Your task to perform on an android device: Open Reddit.com Image 0: 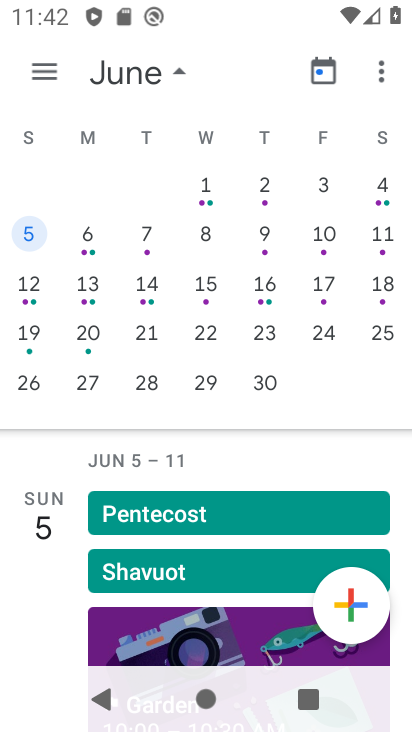
Step 0: press home button
Your task to perform on an android device: Open Reddit.com Image 1: 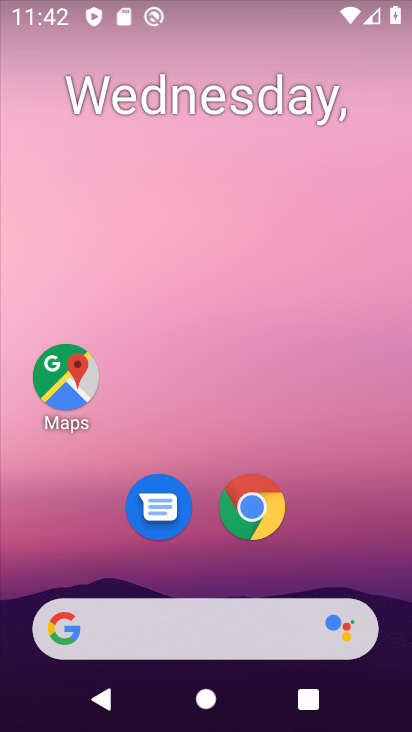
Step 1: drag from (279, 611) to (365, 137)
Your task to perform on an android device: Open Reddit.com Image 2: 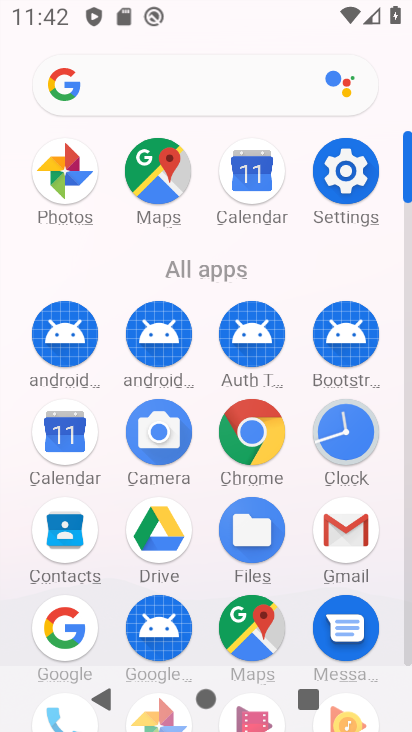
Step 2: click (268, 446)
Your task to perform on an android device: Open Reddit.com Image 3: 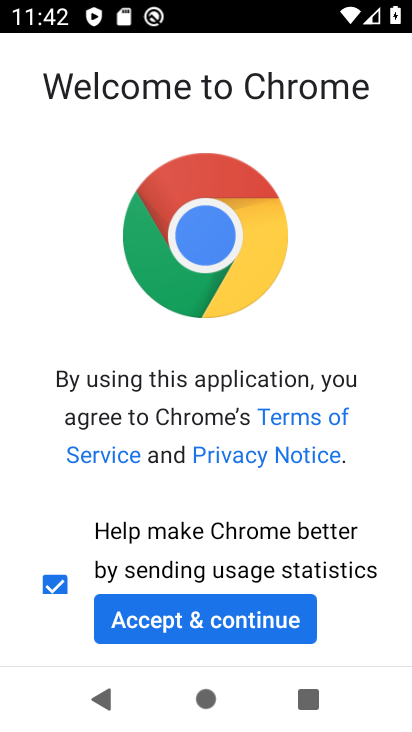
Step 3: click (202, 630)
Your task to perform on an android device: Open Reddit.com Image 4: 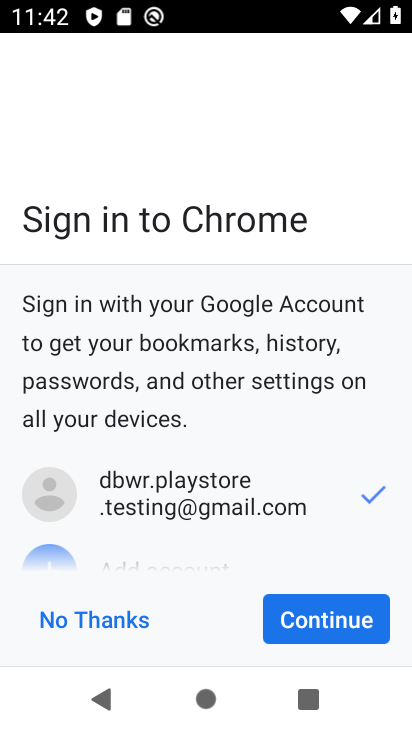
Step 4: click (314, 617)
Your task to perform on an android device: Open Reddit.com Image 5: 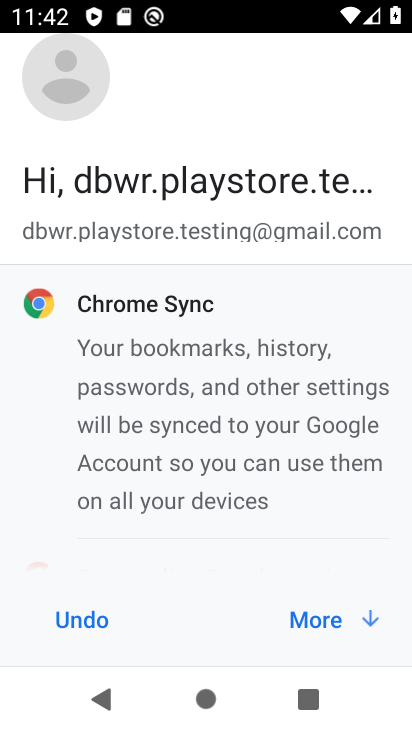
Step 5: click (328, 637)
Your task to perform on an android device: Open Reddit.com Image 6: 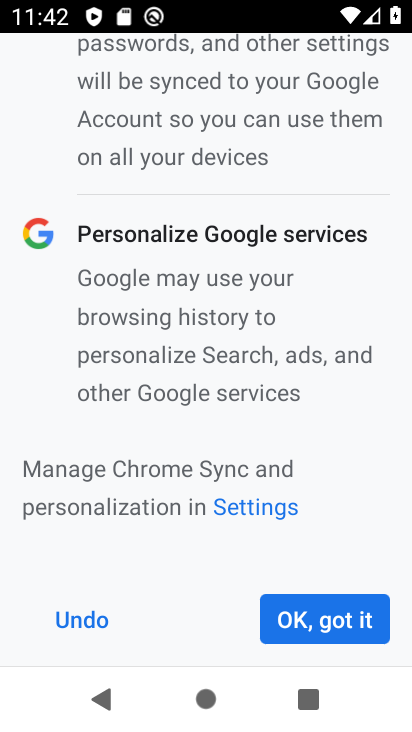
Step 6: click (323, 622)
Your task to perform on an android device: Open Reddit.com Image 7: 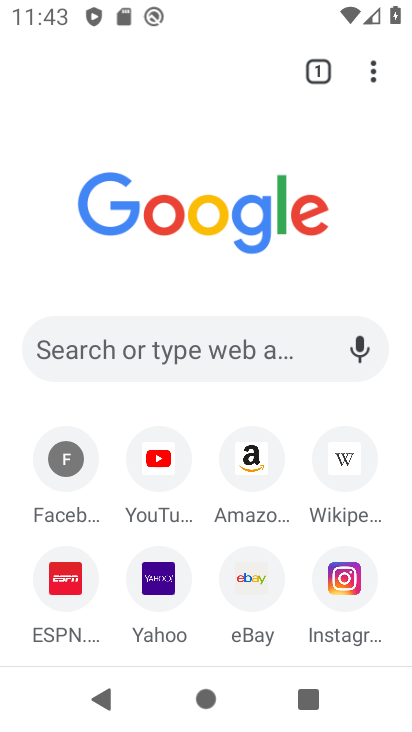
Step 7: click (161, 349)
Your task to perform on an android device: Open Reddit.com Image 8: 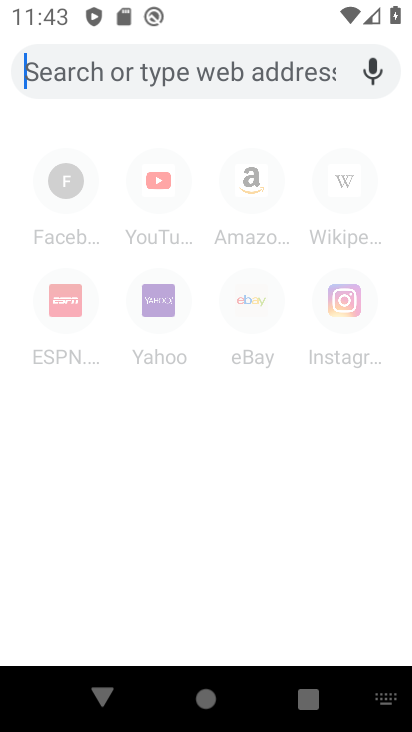
Step 8: type "reddit"
Your task to perform on an android device: Open Reddit.com Image 9: 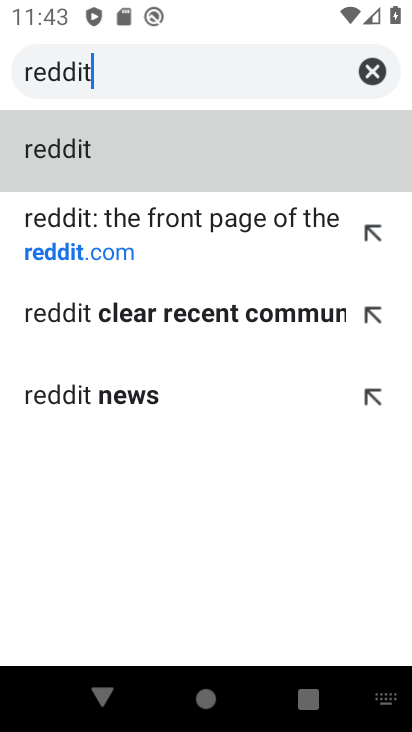
Step 9: click (162, 229)
Your task to perform on an android device: Open Reddit.com Image 10: 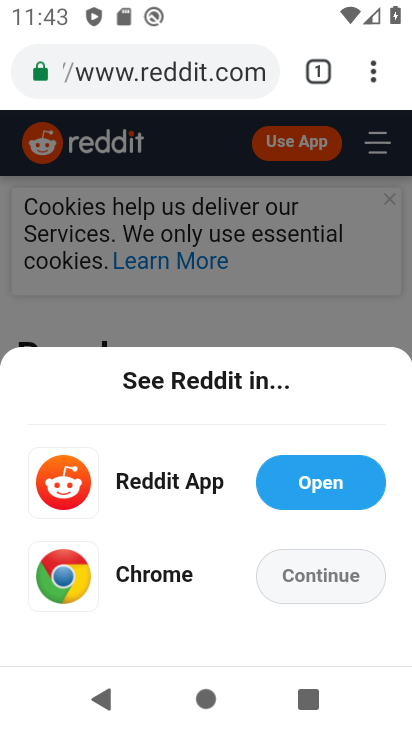
Step 10: click (299, 585)
Your task to perform on an android device: Open Reddit.com Image 11: 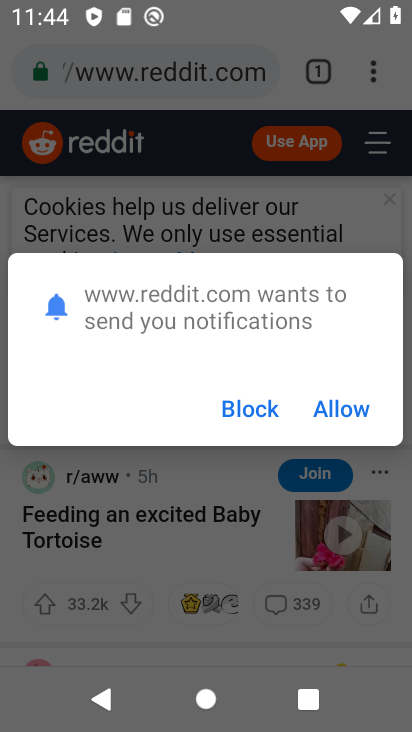
Step 11: task complete